Your task to perform on an android device: Add "beats solo 3" to the cart on newegg, then select checkout. Image 0: 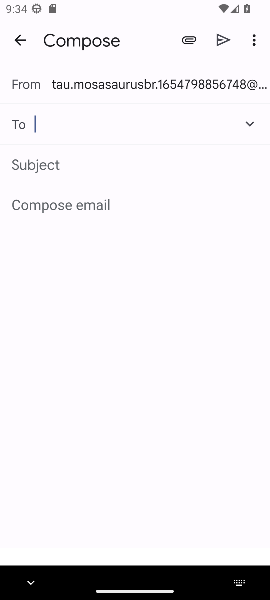
Step 0: press home button
Your task to perform on an android device: Add "beats solo 3" to the cart on newegg, then select checkout. Image 1: 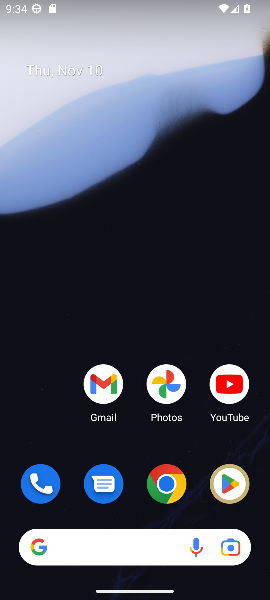
Step 1: click (166, 485)
Your task to perform on an android device: Add "beats solo 3" to the cart on newegg, then select checkout. Image 2: 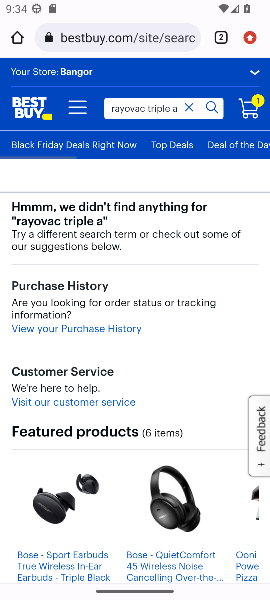
Step 2: click (102, 39)
Your task to perform on an android device: Add "beats solo 3" to the cart on newegg, then select checkout. Image 3: 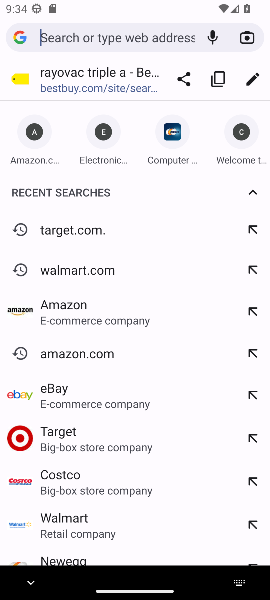
Step 3: click (165, 153)
Your task to perform on an android device: Add "beats solo 3" to the cart on newegg, then select checkout. Image 4: 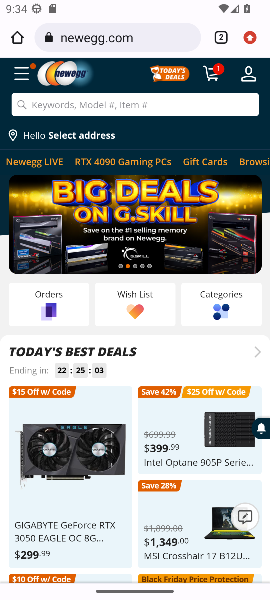
Step 4: click (67, 111)
Your task to perform on an android device: Add "beats solo 3" to the cart on newegg, then select checkout. Image 5: 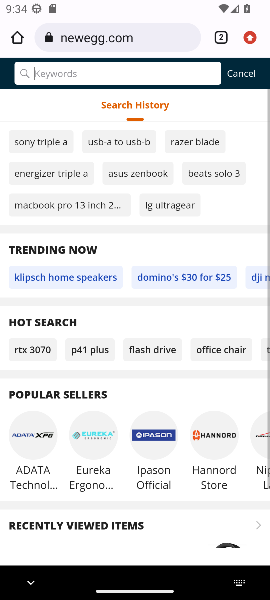
Step 5: type "beats solo 3"
Your task to perform on an android device: Add "beats solo 3" to the cart on newegg, then select checkout. Image 6: 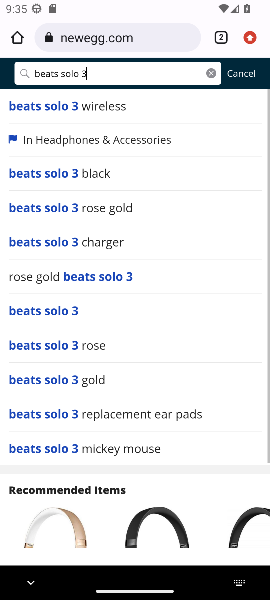
Step 6: click (67, 312)
Your task to perform on an android device: Add "beats solo 3" to the cart on newegg, then select checkout. Image 7: 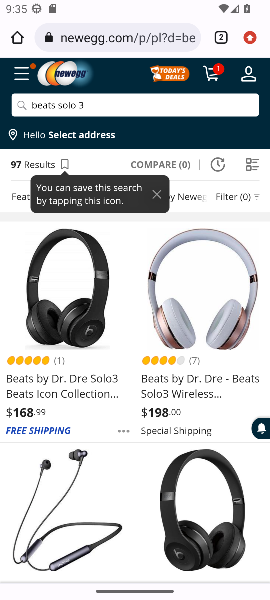
Step 7: click (64, 344)
Your task to perform on an android device: Add "beats solo 3" to the cart on newegg, then select checkout. Image 8: 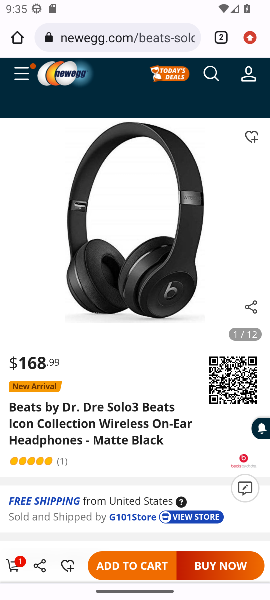
Step 8: click (115, 559)
Your task to perform on an android device: Add "beats solo 3" to the cart on newegg, then select checkout. Image 9: 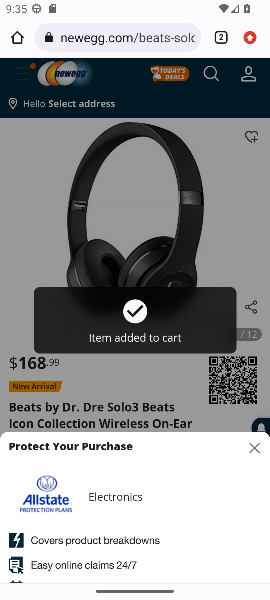
Step 9: click (17, 560)
Your task to perform on an android device: Add "beats solo 3" to the cart on newegg, then select checkout. Image 10: 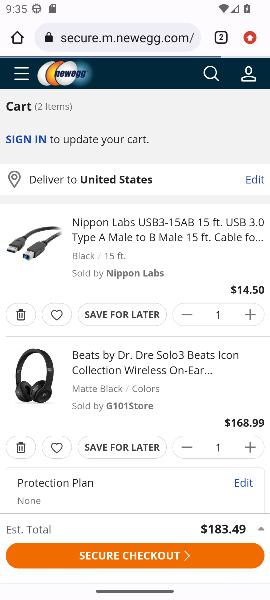
Step 10: click (66, 554)
Your task to perform on an android device: Add "beats solo 3" to the cart on newegg, then select checkout. Image 11: 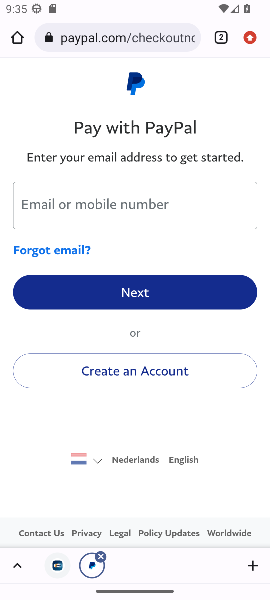
Step 11: task complete